Your task to perform on an android device: find snoozed emails in the gmail app Image 0: 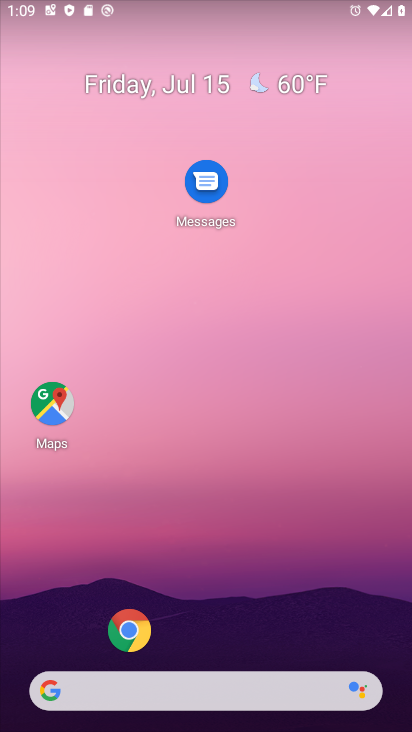
Step 0: drag from (26, 639) to (59, 476)
Your task to perform on an android device: find snoozed emails in the gmail app Image 1: 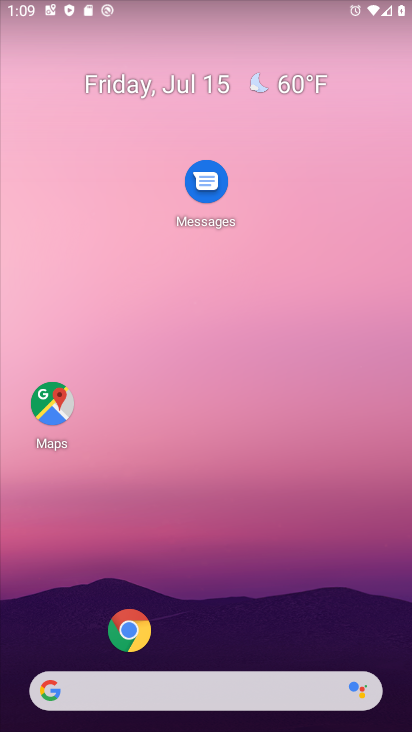
Step 1: drag from (41, 622) to (204, 220)
Your task to perform on an android device: find snoozed emails in the gmail app Image 2: 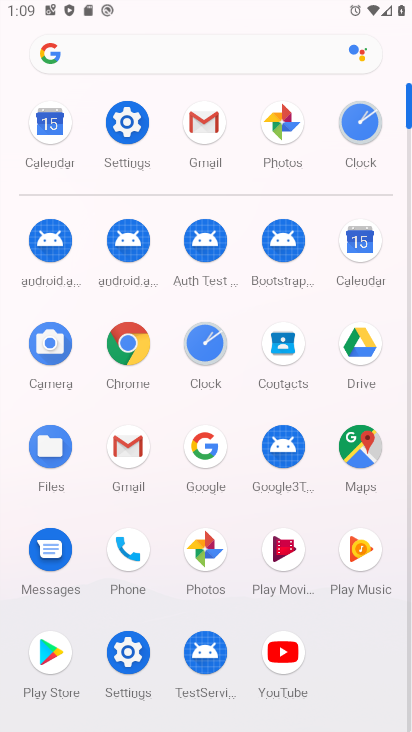
Step 2: click (141, 462)
Your task to perform on an android device: find snoozed emails in the gmail app Image 3: 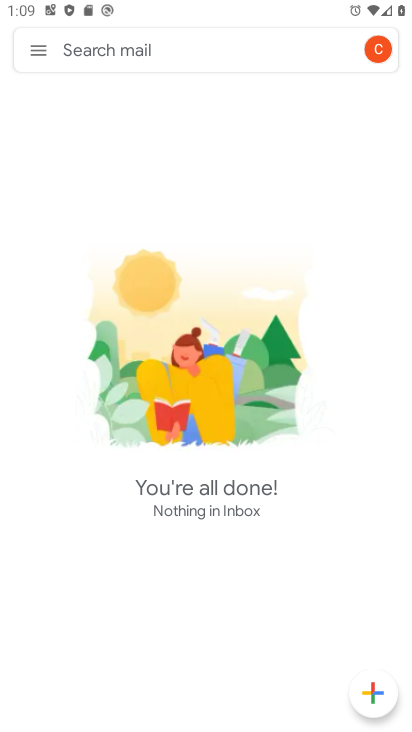
Step 3: click (46, 47)
Your task to perform on an android device: find snoozed emails in the gmail app Image 4: 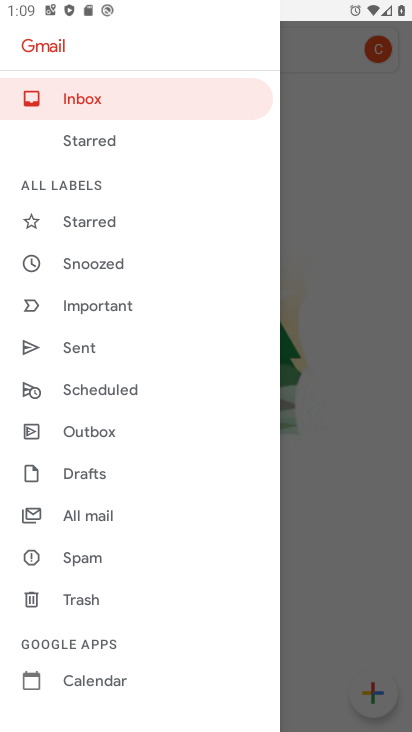
Step 4: click (95, 264)
Your task to perform on an android device: find snoozed emails in the gmail app Image 5: 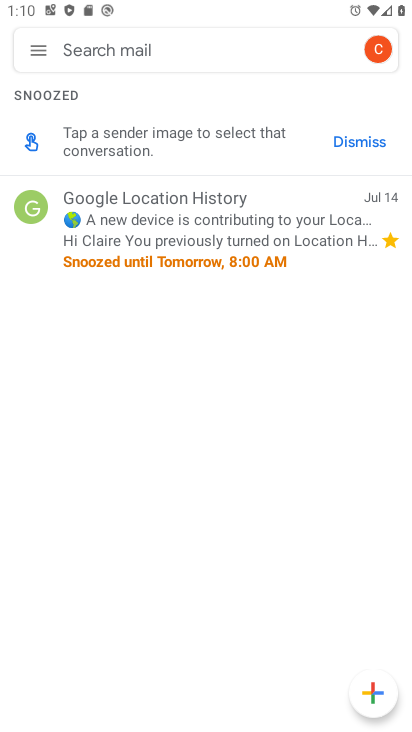
Step 5: task complete